Your task to perform on an android device: Open internet settings Image 0: 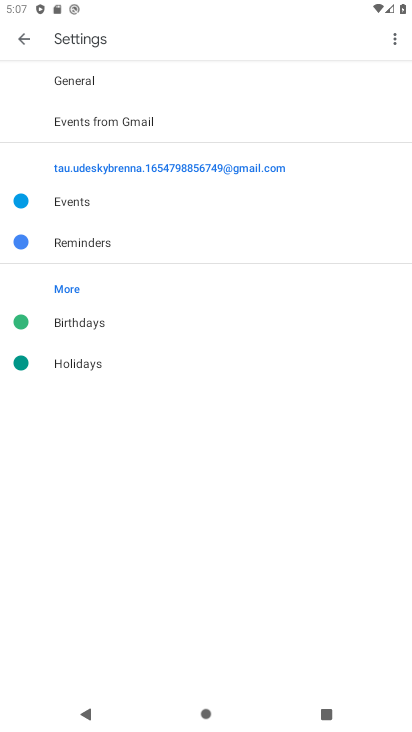
Step 0: press home button
Your task to perform on an android device: Open internet settings Image 1: 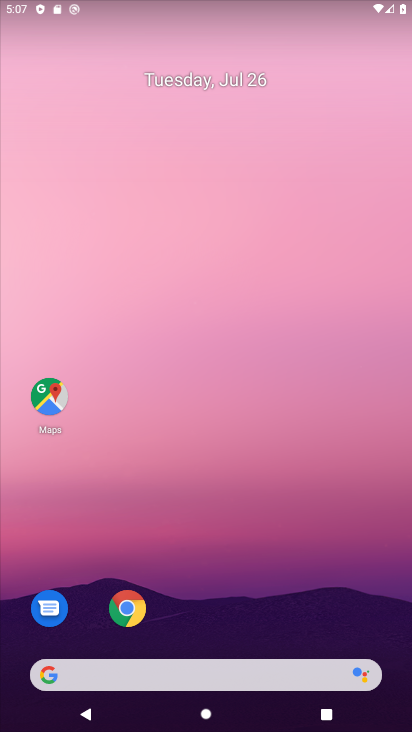
Step 1: drag from (240, 655) to (241, 140)
Your task to perform on an android device: Open internet settings Image 2: 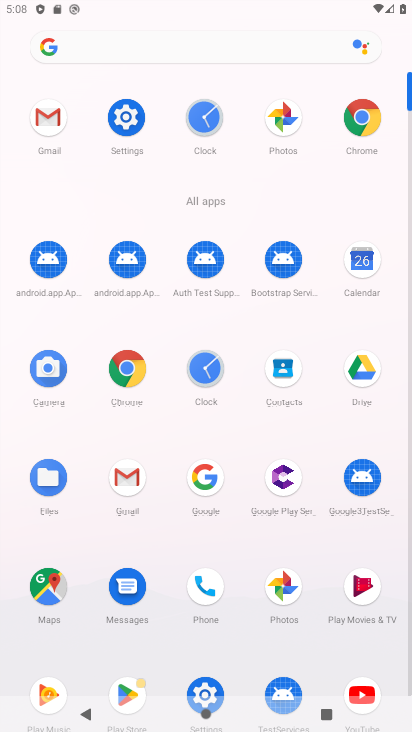
Step 2: click (121, 118)
Your task to perform on an android device: Open internet settings Image 3: 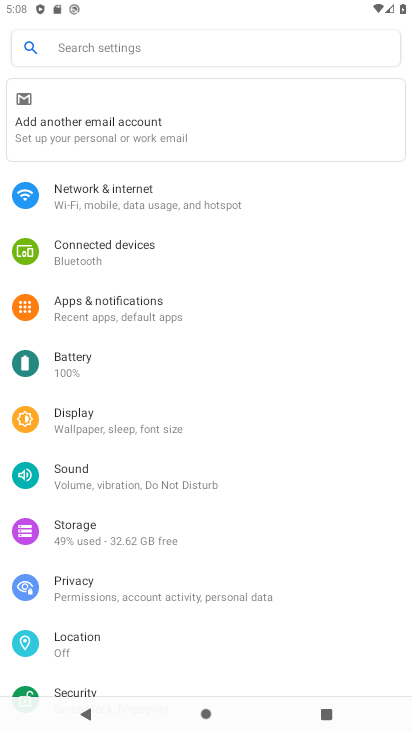
Step 3: click (125, 198)
Your task to perform on an android device: Open internet settings Image 4: 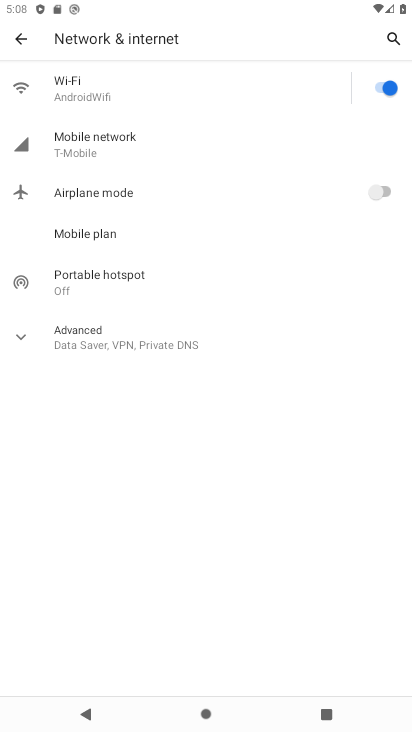
Step 4: task complete